Your task to perform on an android device: star an email in the gmail app Image 0: 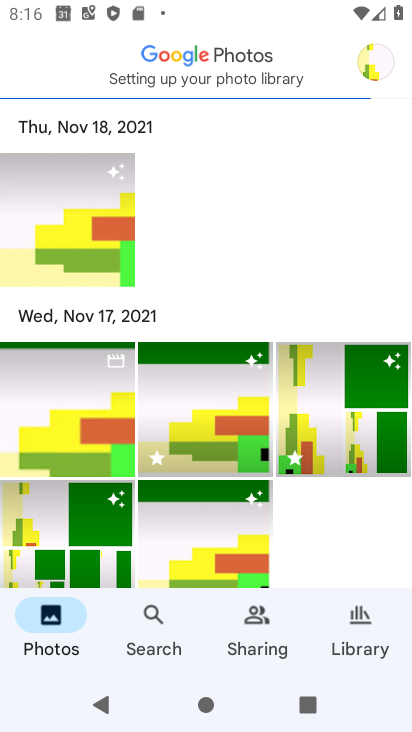
Step 0: press home button
Your task to perform on an android device: star an email in the gmail app Image 1: 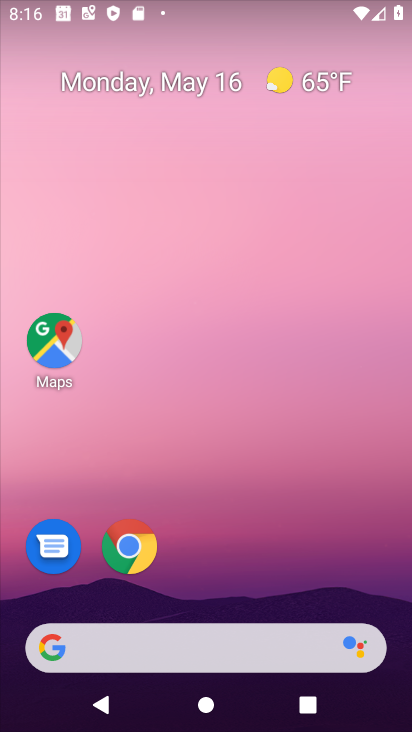
Step 1: drag from (271, 549) to (280, 301)
Your task to perform on an android device: star an email in the gmail app Image 2: 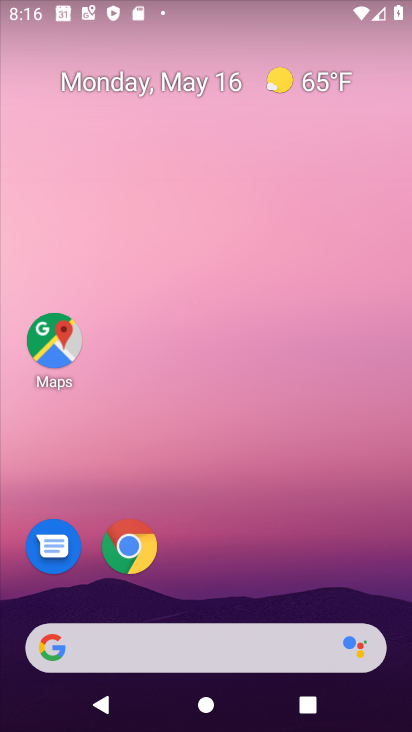
Step 2: drag from (247, 579) to (296, 24)
Your task to perform on an android device: star an email in the gmail app Image 3: 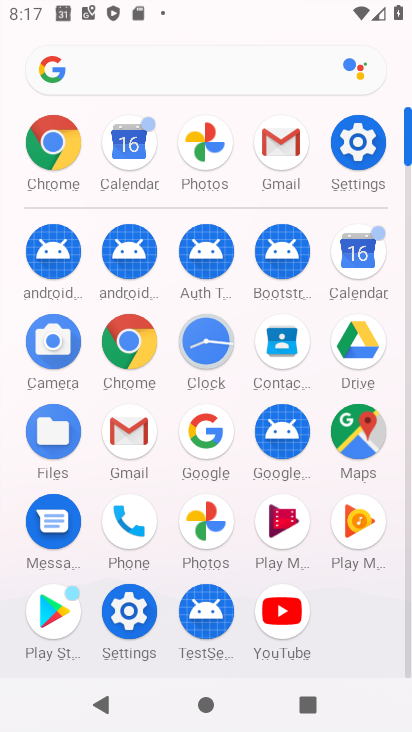
Step 3: click (289, 145)
Your task to perform on an android device: star an email in the gmail app Image 4: 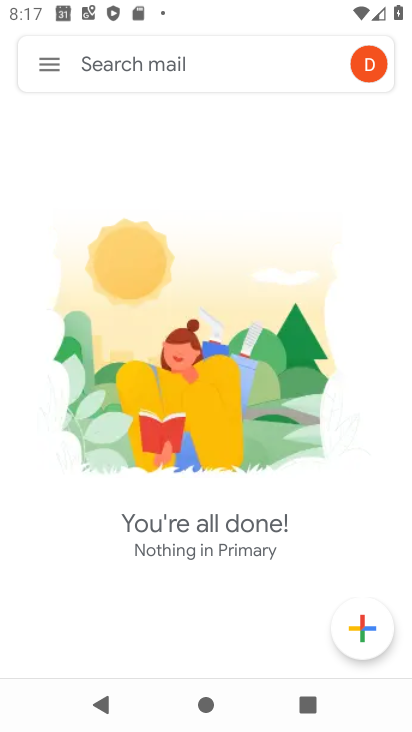
Step 4: click (43, 62)
Your task to perform on an android device: star an email in the gmail app Image 5: 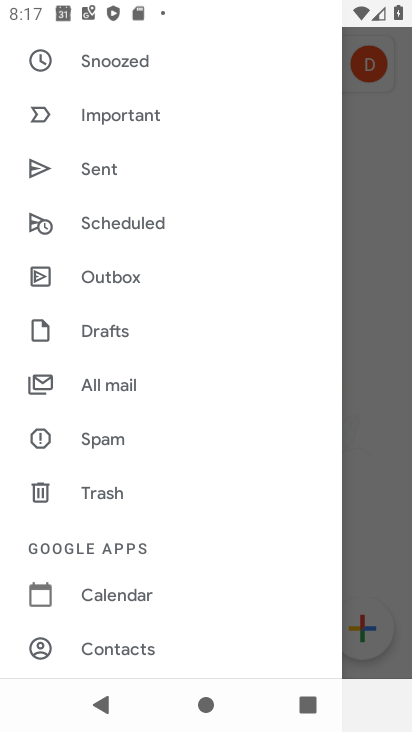
Step 5: drag from (119, 593) to (159, 429)
Your task to perform on an android device: star an email in the gmail app Image 6: 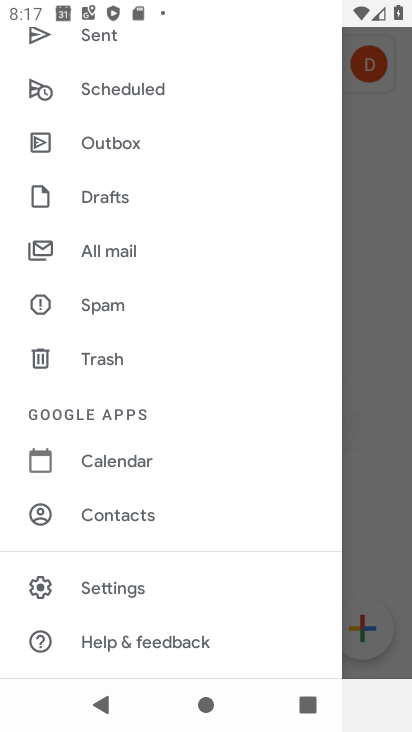
Step 6: drag from (166, 159) to (153, 322)
Your task to perform on an android device: star an email in the gmail app Image 7: 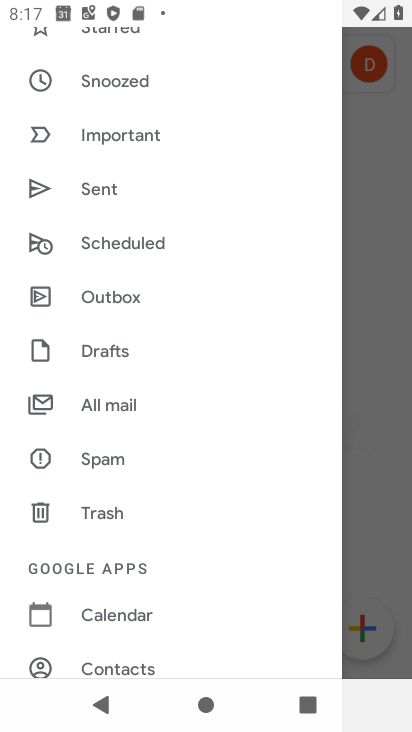
Step 7: click (141, 400)
Your task to perform on an android device: star an email in the gmail app Image 8: 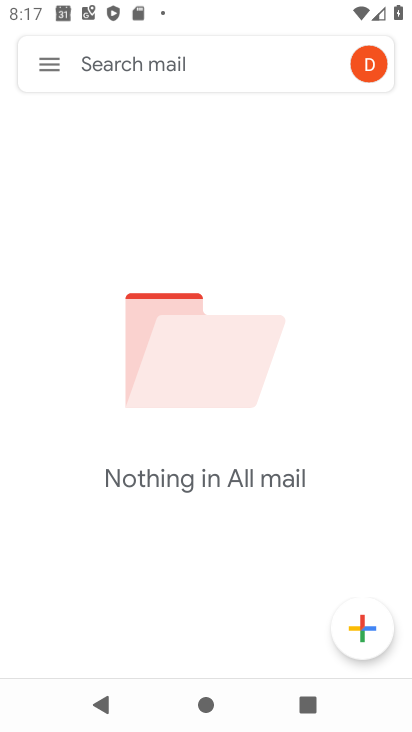
Step 8: task complete